Your task to perform on an android device: Open battery settings Image 0: 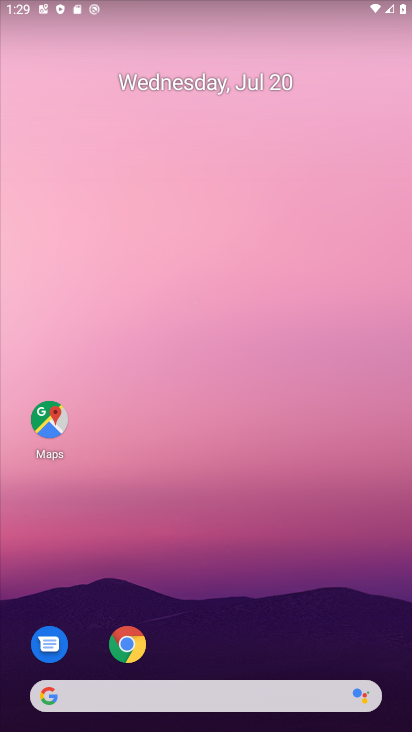
Step 0: drag from (241, 645) to (244, 134)
Your task to perform on an android device: Open battery settings Image 1: 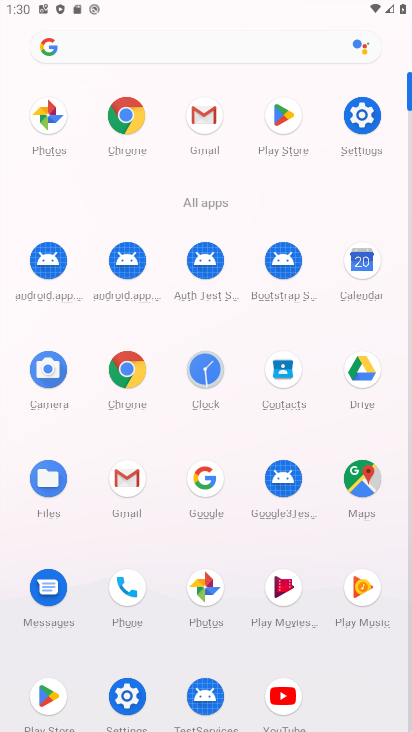
Step 1: click (358, 121)
Your task to perform on an android device: Open battery settings Image 2: 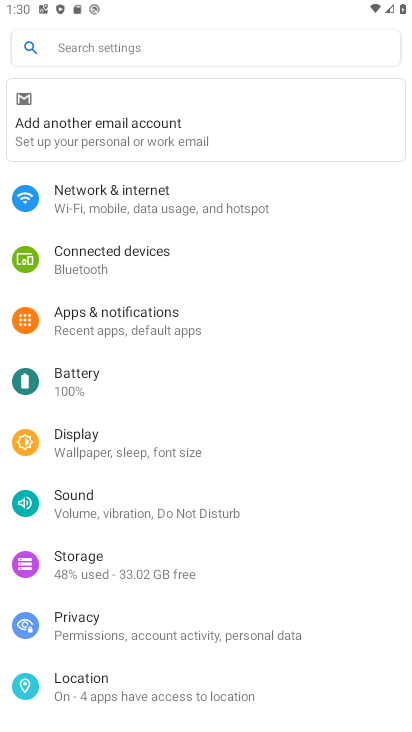
Step 2: click (68, 378)
Your task to perform on an android device: Open battery settings Image 3: 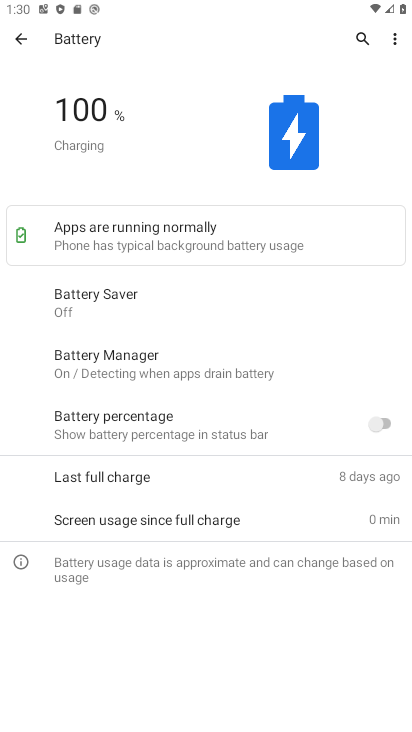
Step 3: task complete